Your task to perform on an android device: turn off smart reply in the gmail app Image 0: 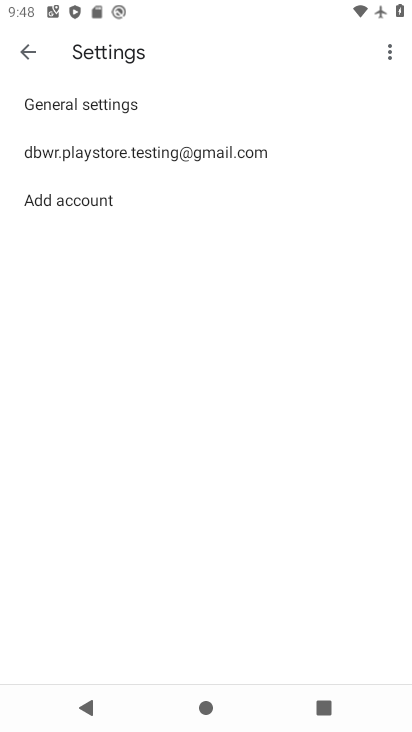
Step 0: press home button
Your task to perform on an android device: turn off smart reply in the gmail app Image 1: 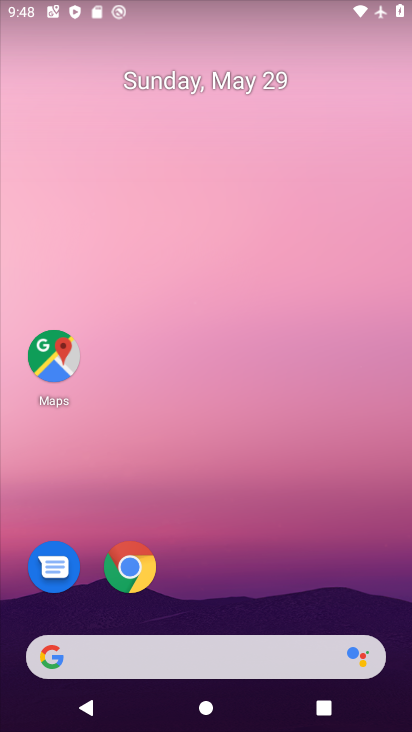
Step 1: drag from (410, 611) to (278, 41)
Your task to perform on an android device: turn off smart reply in the gmail app Image 2: 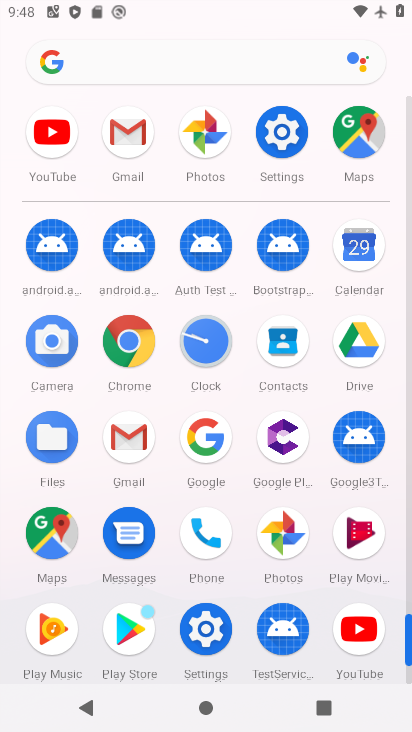
Step 2: click (129, 436)
Your task to perform on an android device: turn off smart reply in the gmail app Image 3: 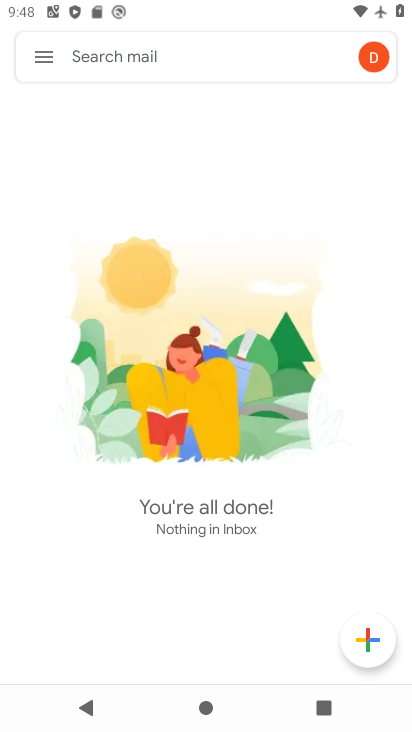
Step 3: click (44, 46)
Your task to perform on an android device: turn off smart reply in the gmail app Image 4: 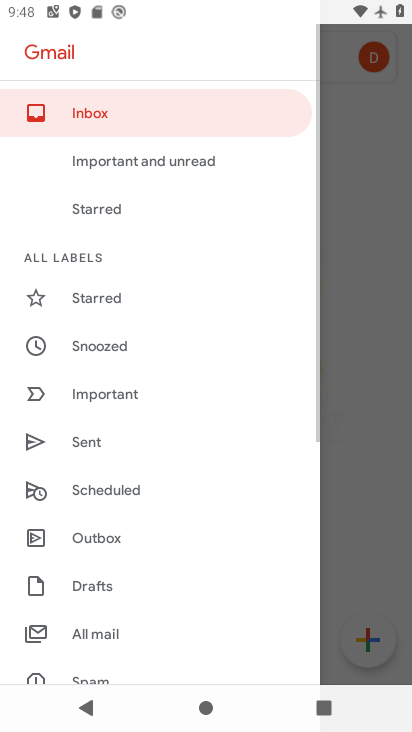
Step 4: drag from (174, 605) to (193, 240)
Your task to perform on an android device: turn off smart reply in the gmail app Image 5: 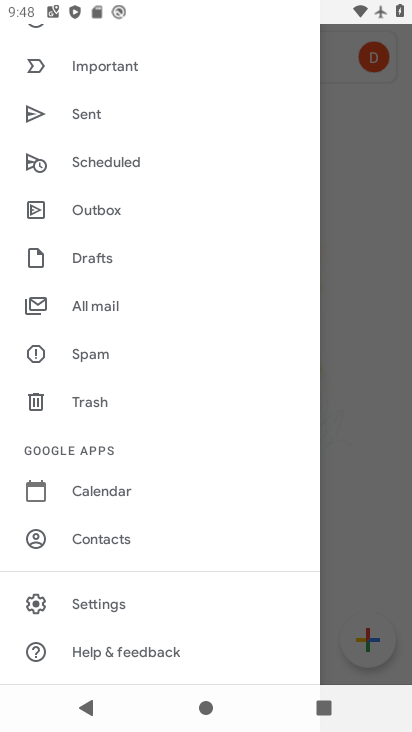
Step 5: click (93, 599)
Your task to perform on an android device: turn off smart reply in the gmail app Image 6: 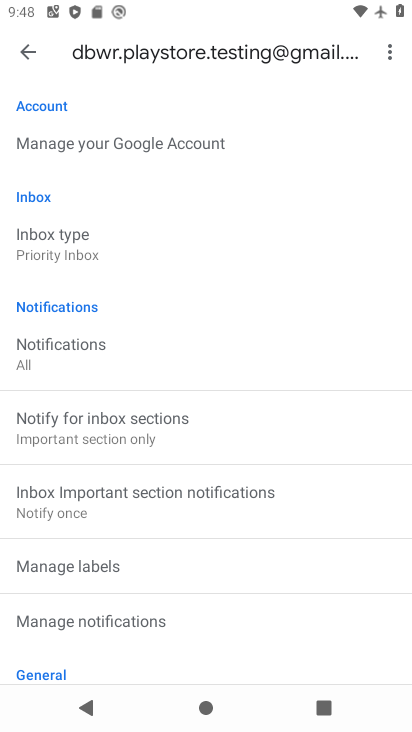
Step 6: task complete